Your task to perform on an android device: turn off location history Image 0: 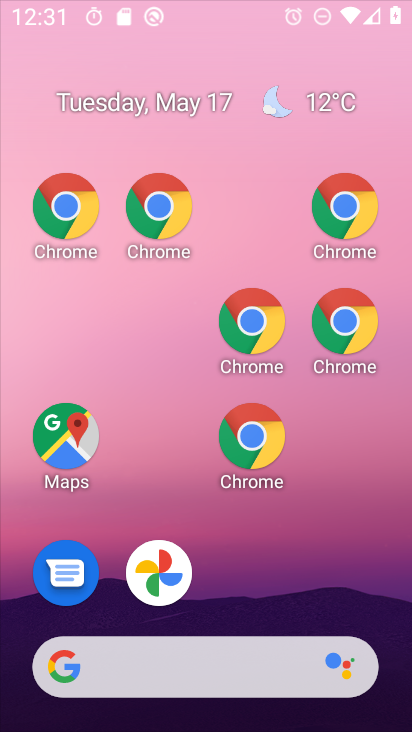
Step 0: drag from (0, 0) to (170, 17)
Your task to perform on an android device: turn off location history Image 1: 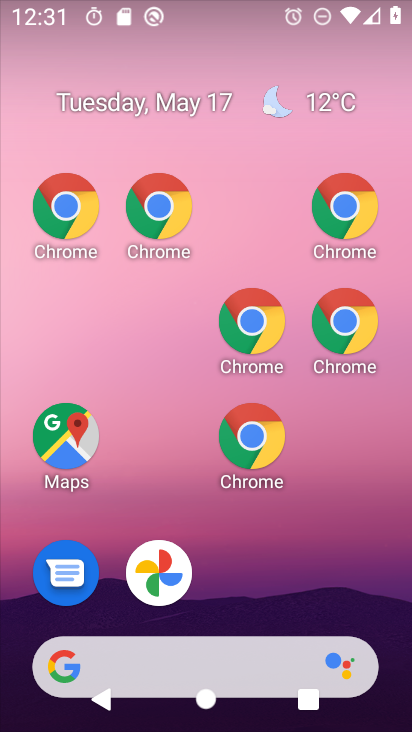
Step 1: drag from (281, 559) to (231, 48)
Your task to perform on an android device: turn off location history Image 2: 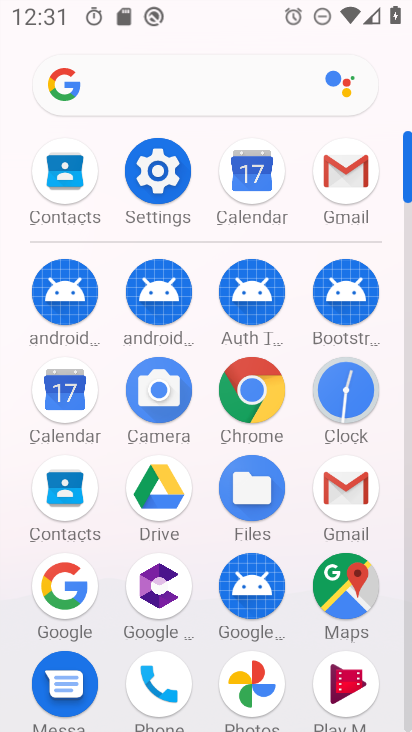
Step 2: click (174, 177)
Your task to perform on an android device: turn off location history Image 3: 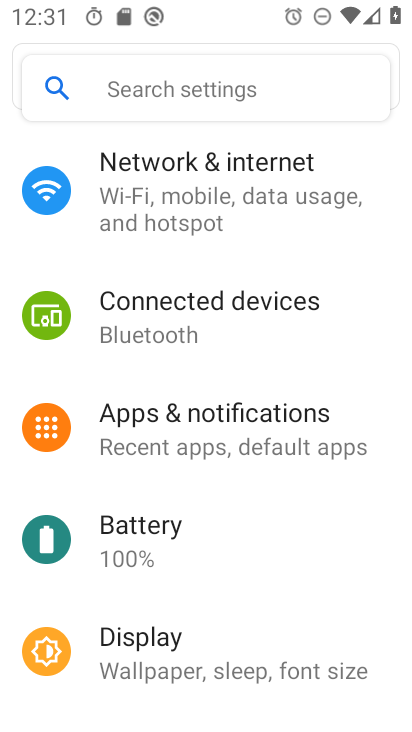
Step 3: click (233, 445)
Your task to perform on an android device: turn off location history Image 4: 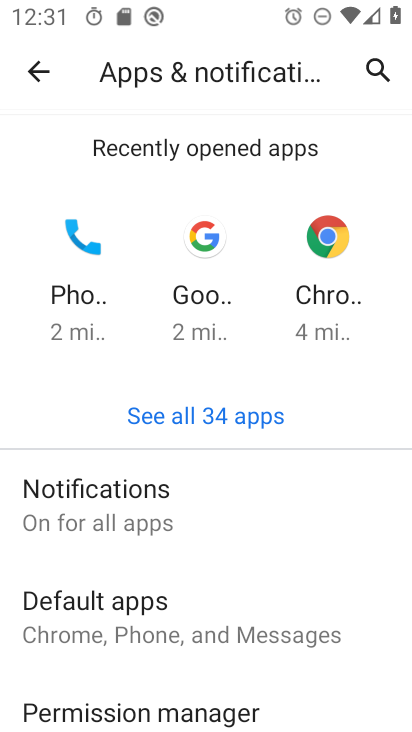
Step 4: drag from (174, 563) to (255, 172)
Your task to perform on an android device: turn off location history Image 5: 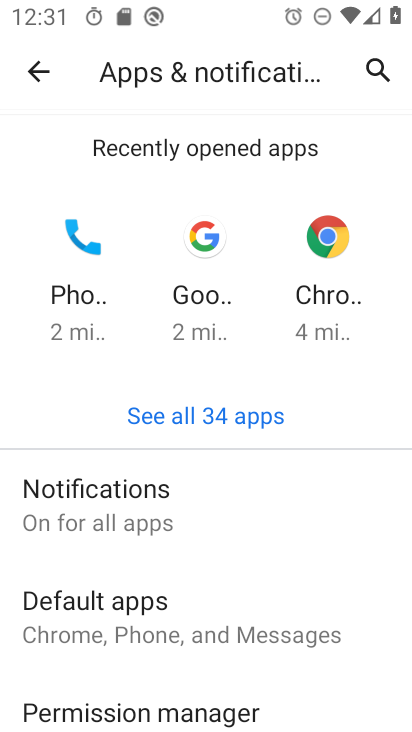
Step 5: click (32, 80)
Your task to perform on an android device: turn off location history Image 6: 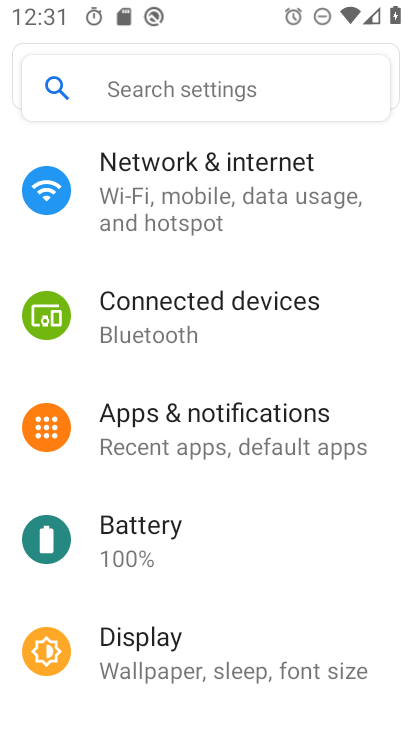
Step 6: drag from (183, 595) to (253, 165)
Your task to perform on an android device: turn off location history Image 7: 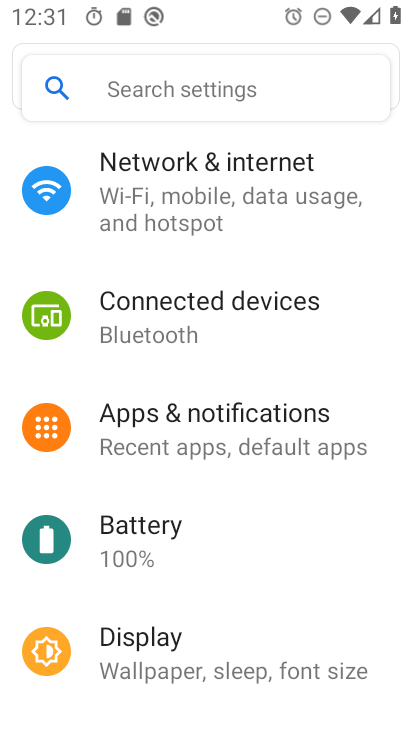
Step 7: drag from (127, 544) to (267, 3)
Your task to perform on an android device: turn off location history Image 8: 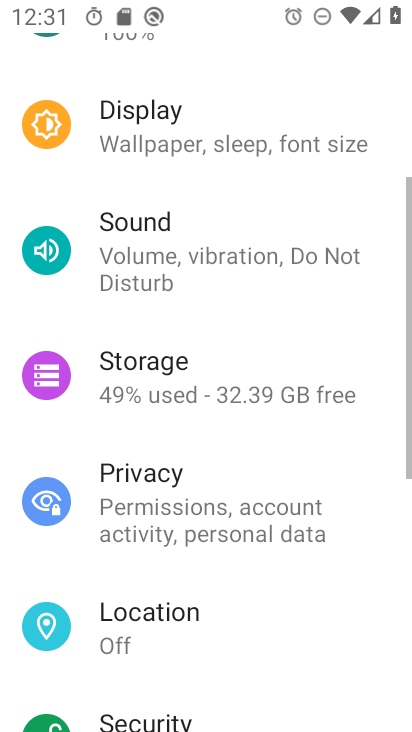
Step 8: drag from (219, 401) to (253, 130)
Your task to perform on an android device: turn off location history Image 9: 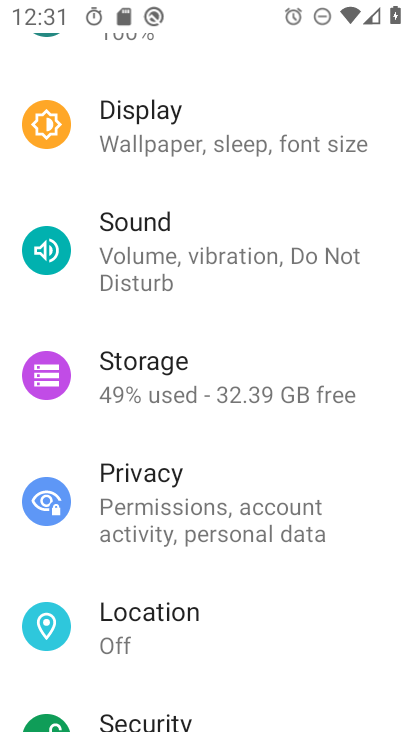
Step 9: click (126, 610)
Your task to perform on an android device: turn off location history Image 10: 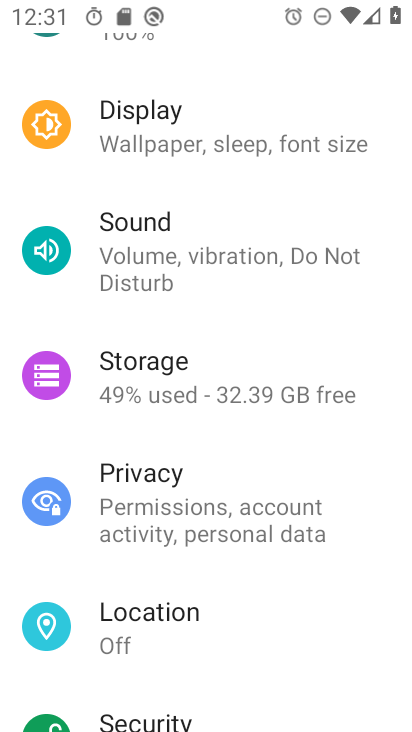
Step 10: click (126, 610)
Your task to perform on an android device: turn off location history Image 11: 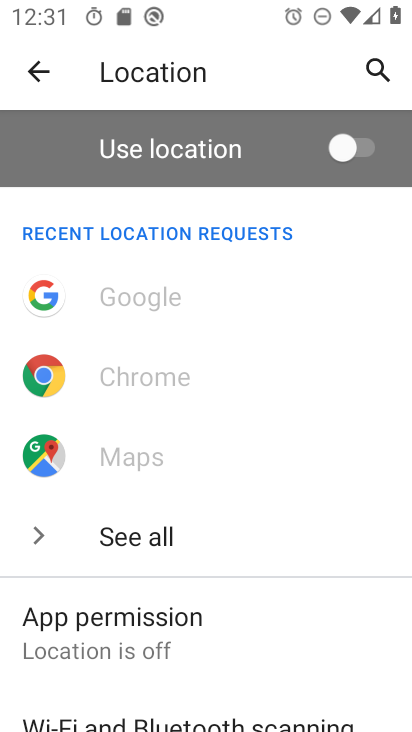
Step 11: click (368, 151)
Your task to perform on an android device: turn off location history Image 12: 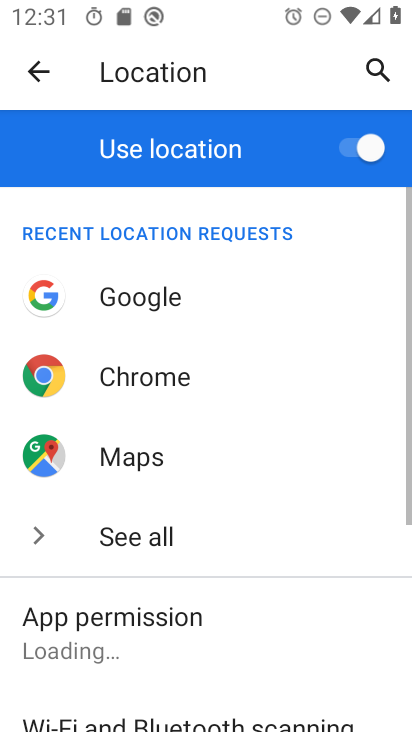
Step 12: click (362, 148)
Your task to perform on an android device: turn off location history Image 13: 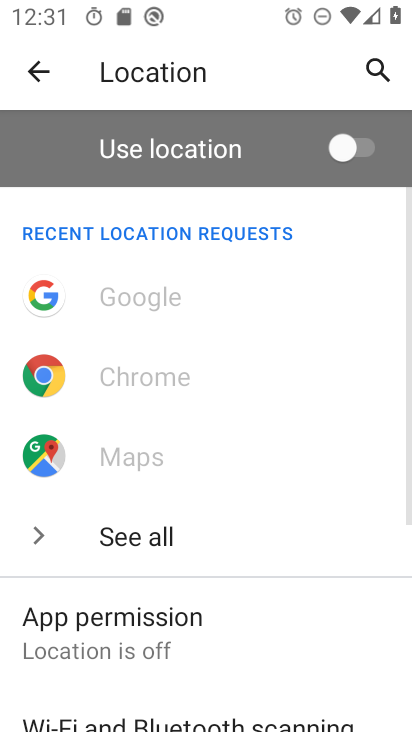
Step 13: task complete